Your task to perform on an android device: uninstall "Microsoft Authenticator" Image 0: 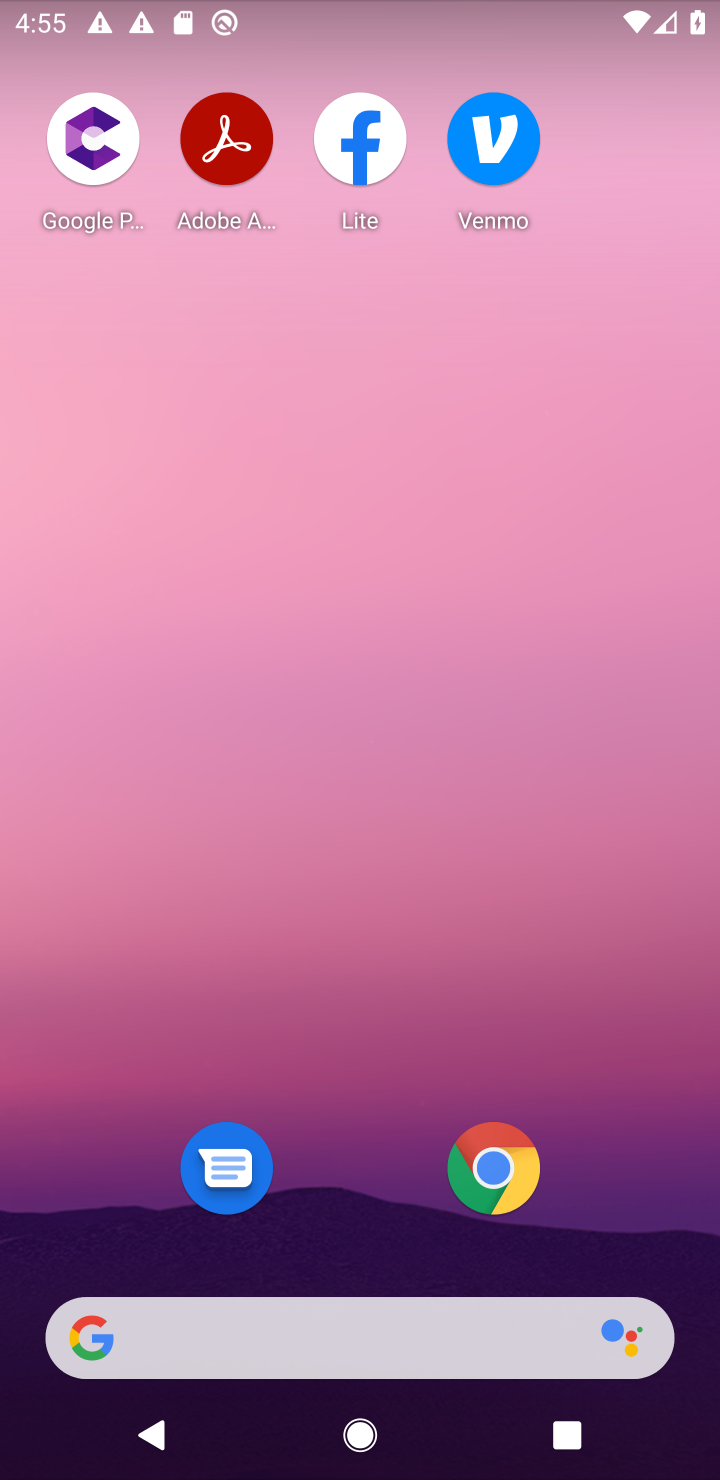
Step 0: drag from (249, 880) to (283, 433)
Your task to perform on an android device: uninstall "Microsoft Authenticator" Image 1: 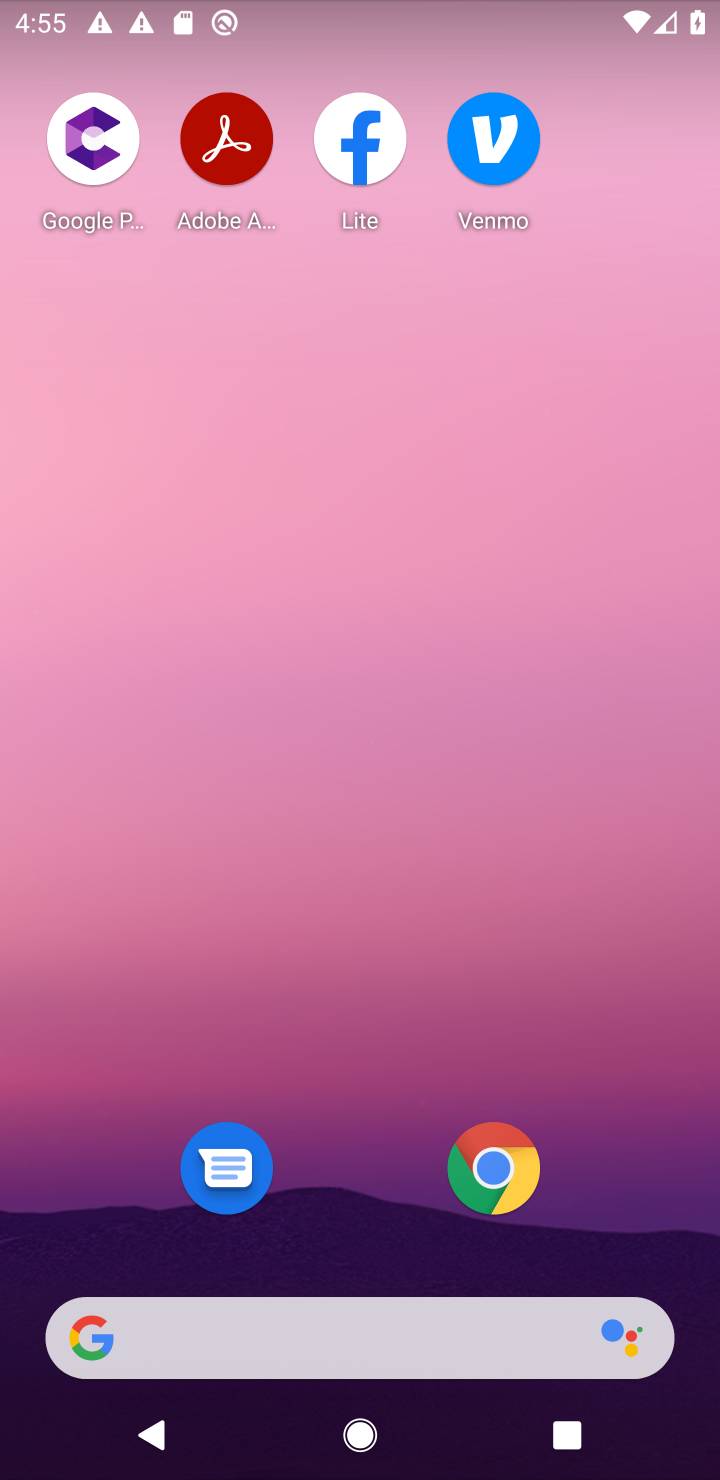
Step 1: drag from (394, 1289) to (177, 16)
Your task to perform on an android device: uninstall "Microsoft Authenticator" Image 2: 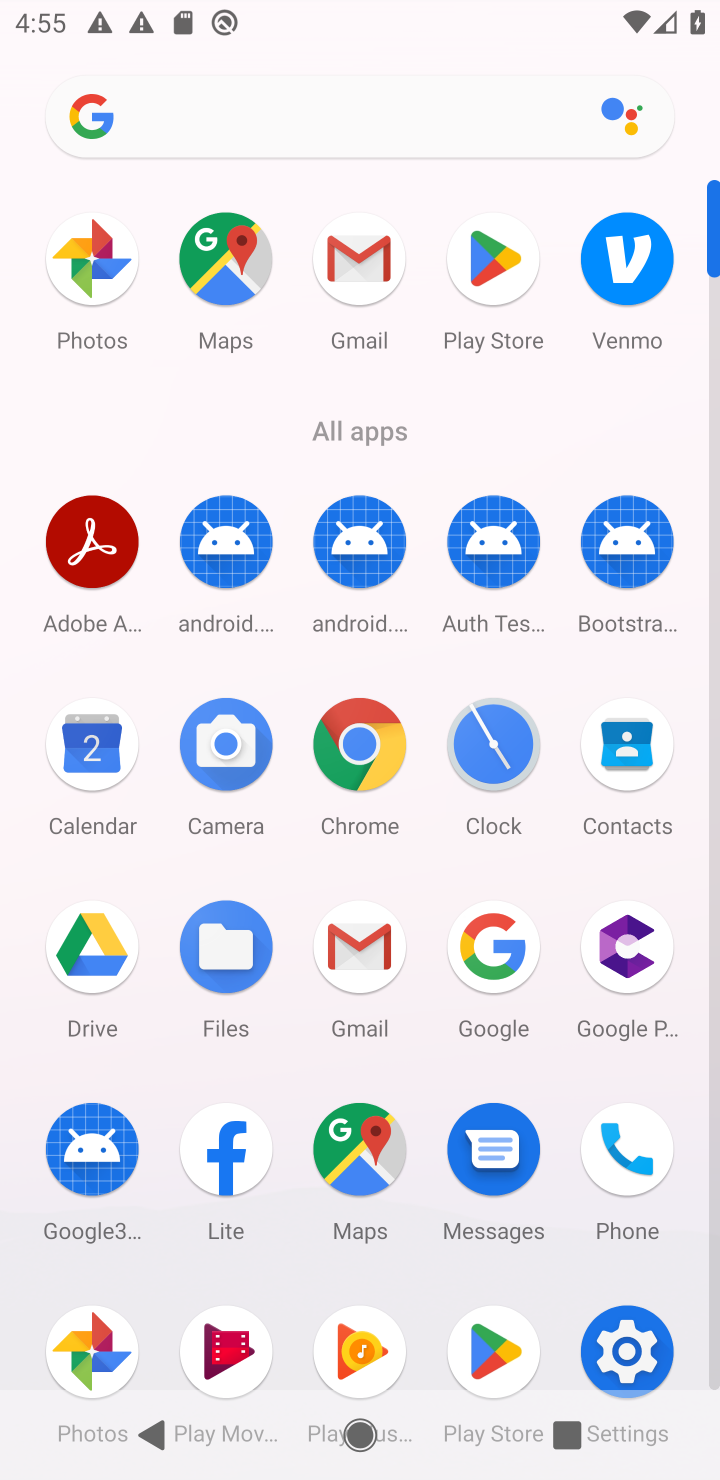
Step 2: click (507, 281)
Your task to perform on an android device: uninstall "Microsoft Authenticator" Image 3: 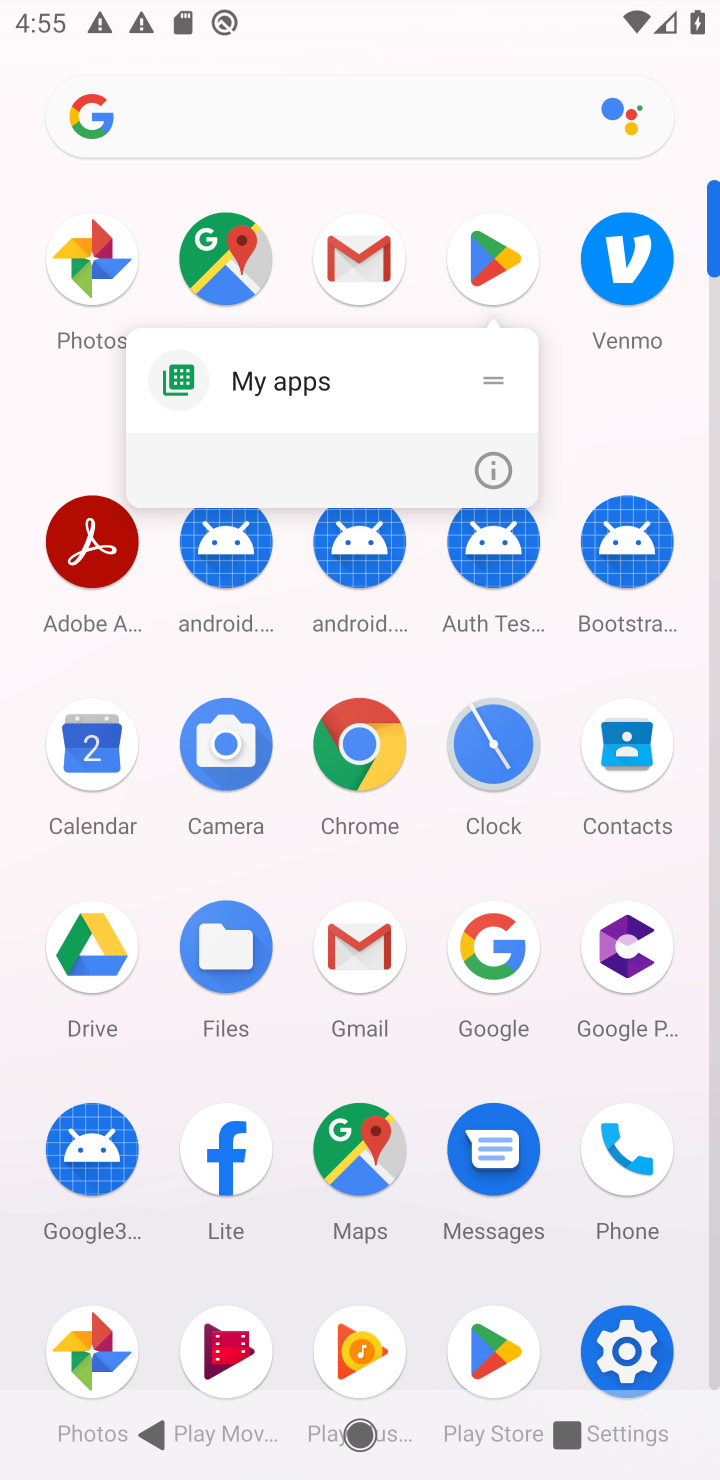
Step 3: click (516, 265)
Your task to perform on an android device: uninstall "Microsoft Authenticator" Image 4: 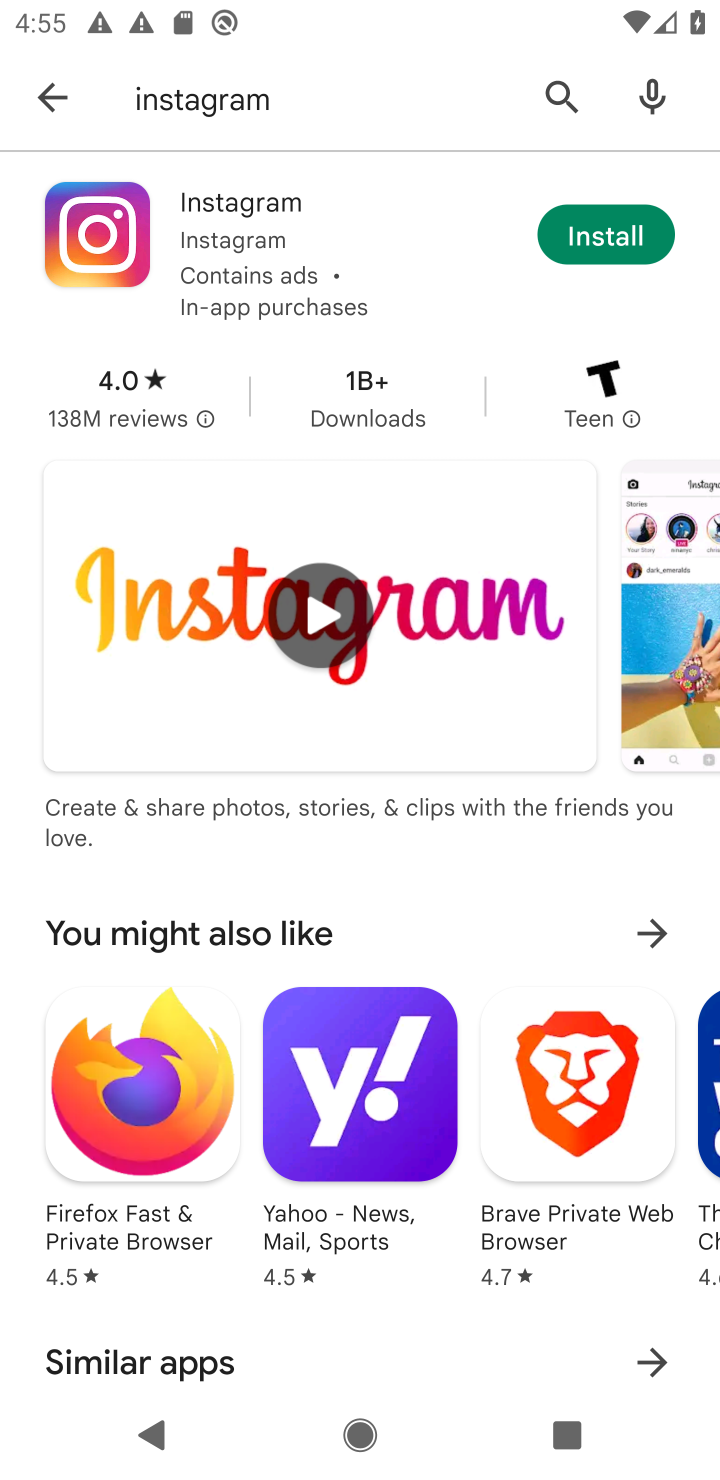
Step 4: click (348, 74)
Your task to perform on an android device: uninstall "Microsoft Authenticator" Image 5: 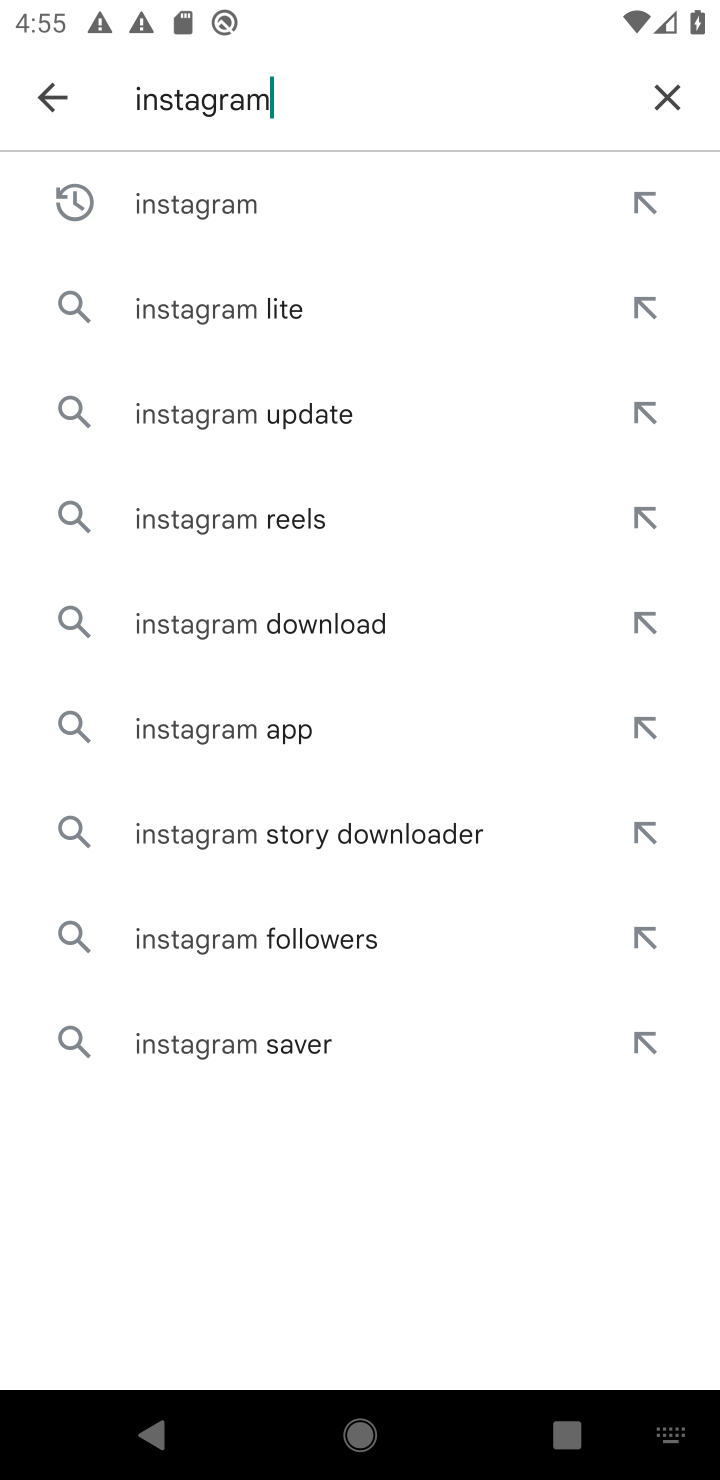
Step 5: click (618, 79)
Your task to perform on an android device: uninstall "Microsoft Authenticator" Image 6: 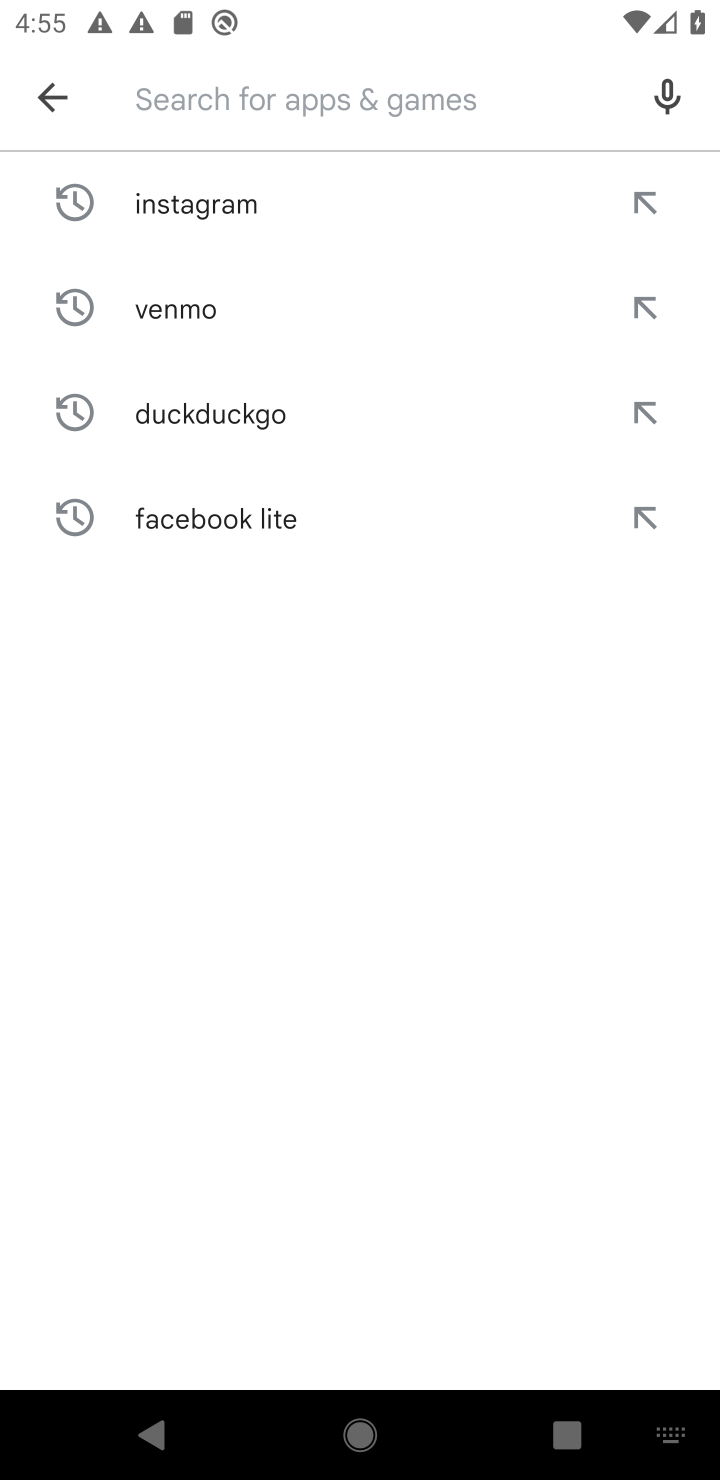
Step 6: type "microsoft authenticator"
Your task to perform on an android device: uninstall "Microsoft Authenticator" Image 7: 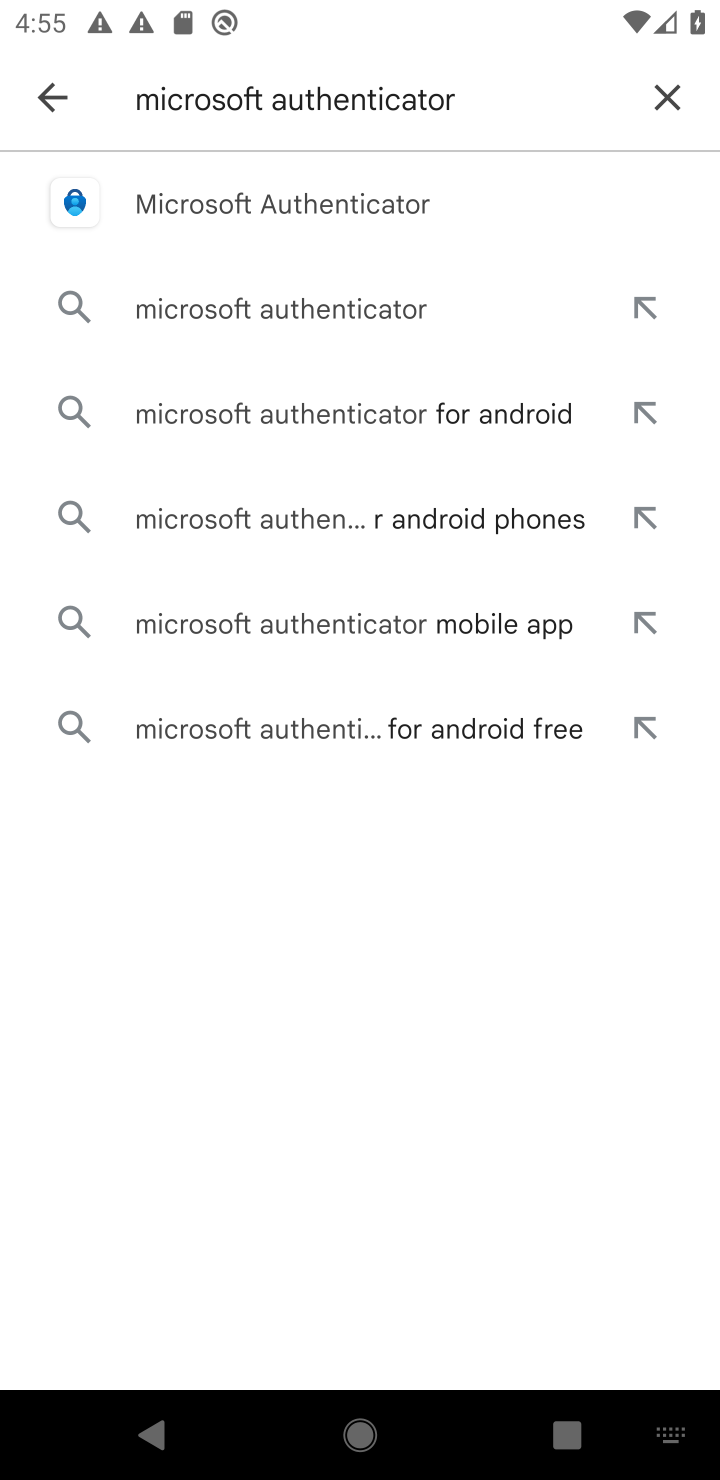
Step 7: click (361, 210)
Your task to perform on an android device: uninstall "Microsoft Authenticator" Image 8: 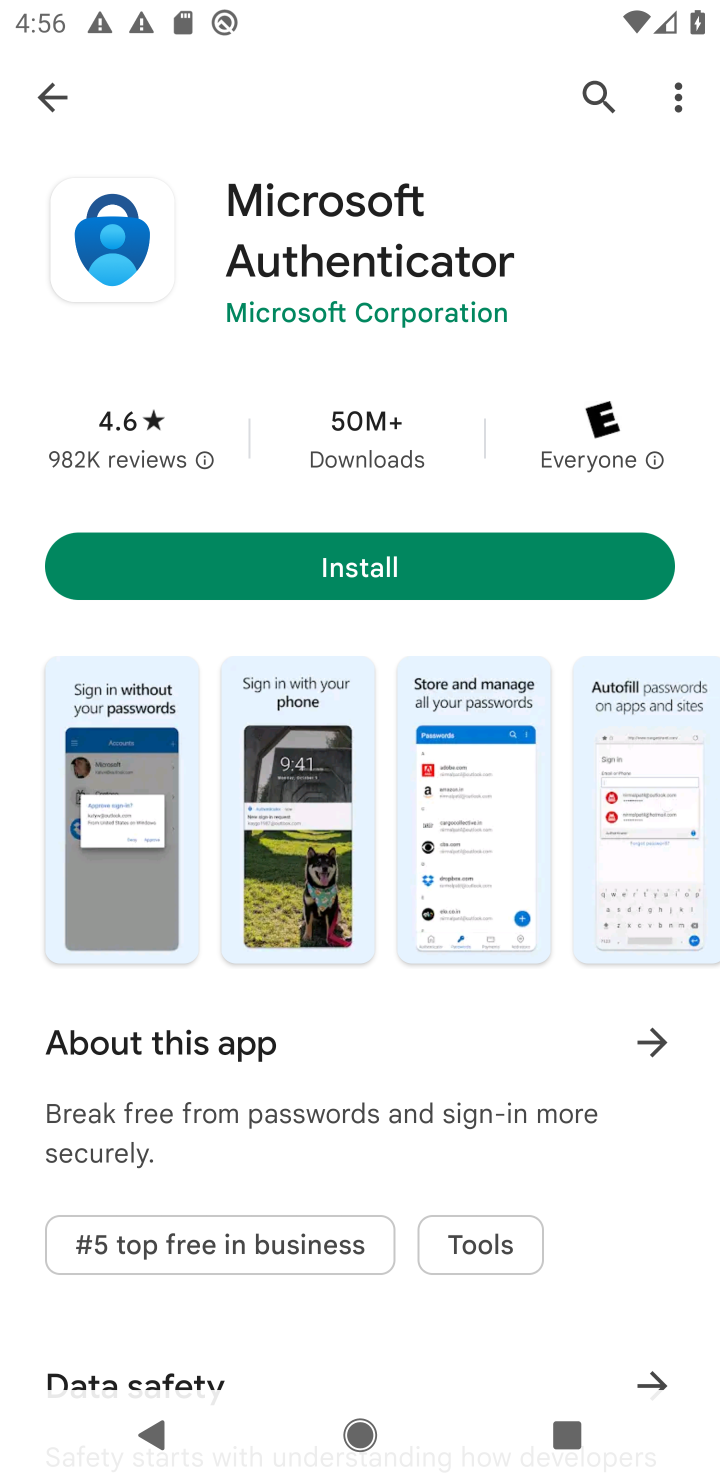
Step 8: task complete